Your task to perform on an android device: open a bookmark in the chrome app Image 0: 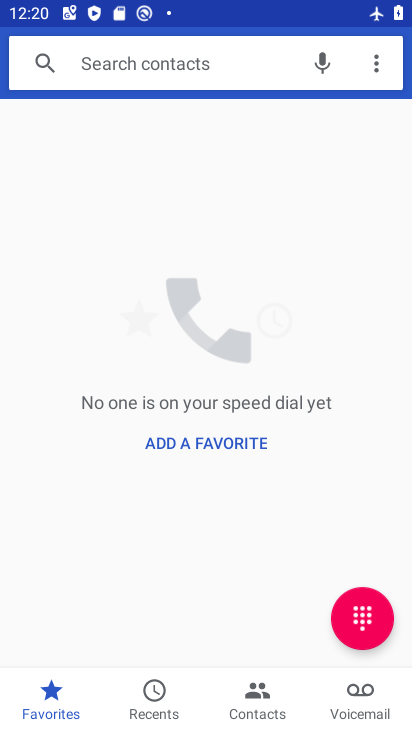
Step 0: drag from (398, 591) to (321, 59)
Your task to perform on an android device: open a bookmark in the chrome app Image 1: 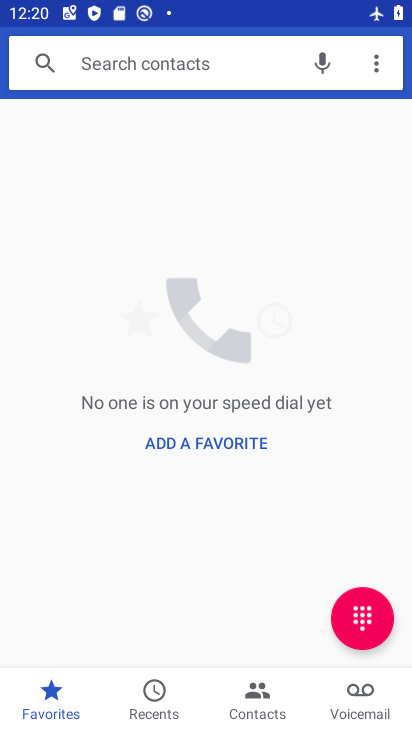
Step 1: press home button
Your task to perform on an android device: open a bookmark in the chrome app Image 2: 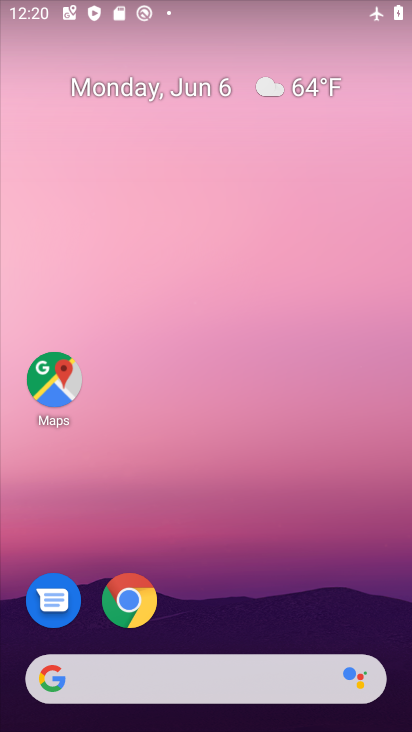
Step 2: click (137, 592)
Your task to perform on an android device: open a bookmark in the chrome app Image 3: 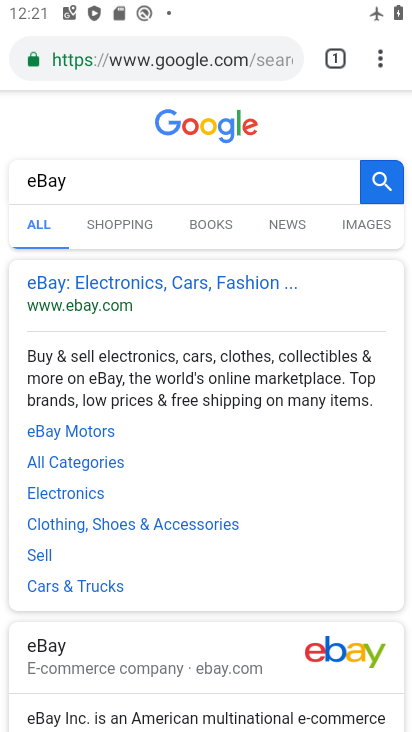
Step 3: click (379, 54)
Your task to perform on an android device: open a bookmark in the chrome app Image 4: 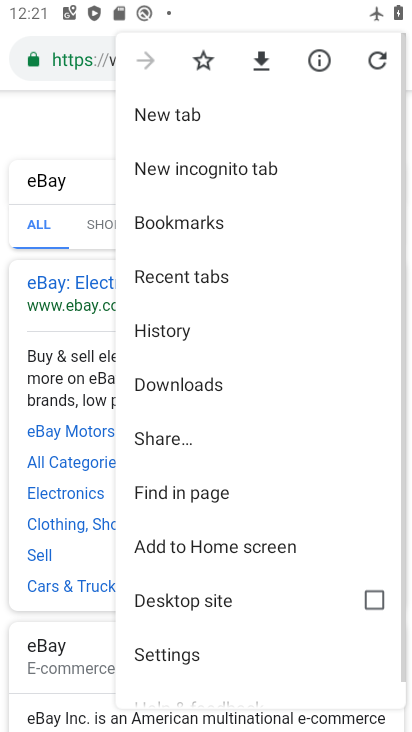
Step 4: click (218, 217)
Your task to perform on an android device: open a bookmark in the chrome app Image 5: 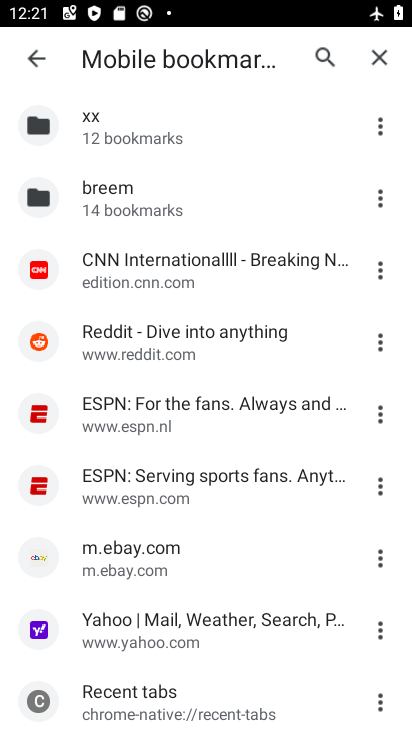
Step 5: click (101, 263)
Your task to perform on an android device: open a bookmark in the chrome app Image 6: 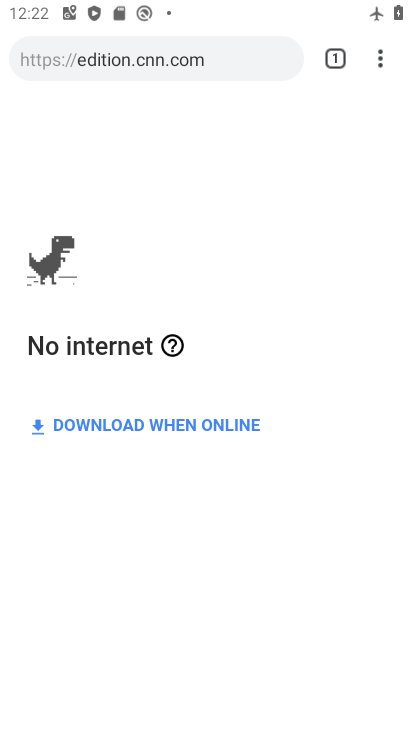
Step 6: press home button
Your task to perform on an android device: open a bookmark in the chrome app Image 7: 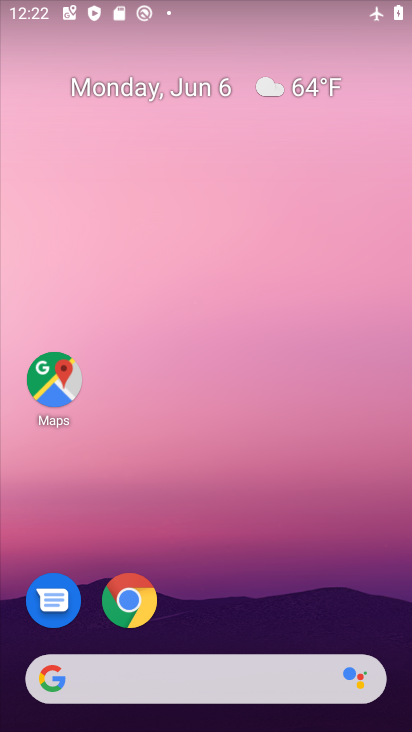
Step 7: drag from (400, 703) to (335, 113)
Your task to perform on an android device: open a bookmark in the chrome app Image 8: 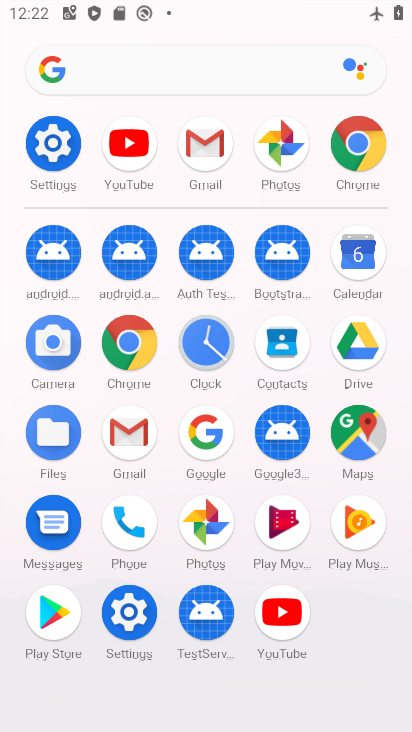
Step 8: click (361, 134)
Your task to perform on an android device: open a bookmark in the chrome app Image 9: 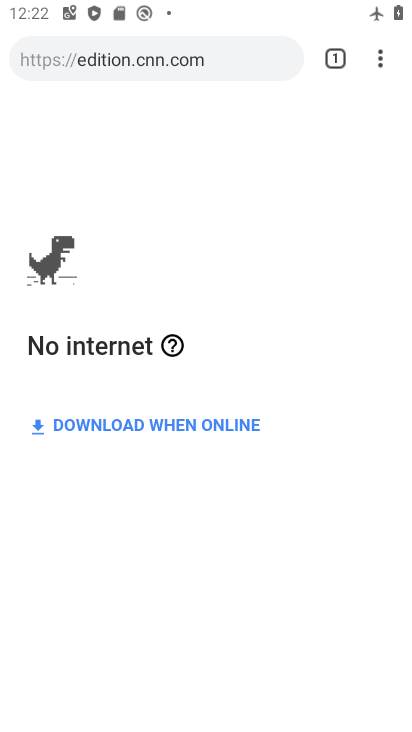
Step 9: task complete